Your task to perform on an android device: create a new album in the google photos Image 0: 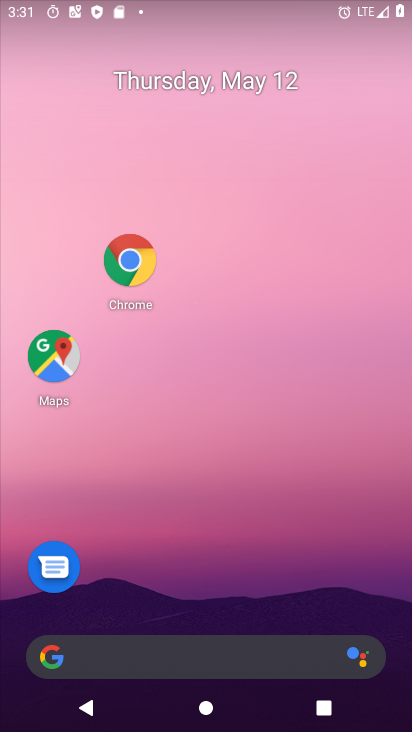
Step 0: drag from (270, 585) to (292, 271)
Your task to perform on an android device: create a new album in the google photos Image 1: 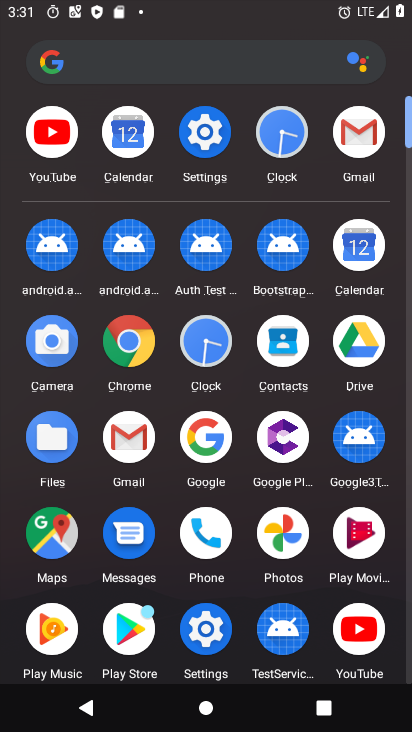
Step 1: click (281, 539)
Your task to perform on an android device: create a new album in the google photos Image 2: 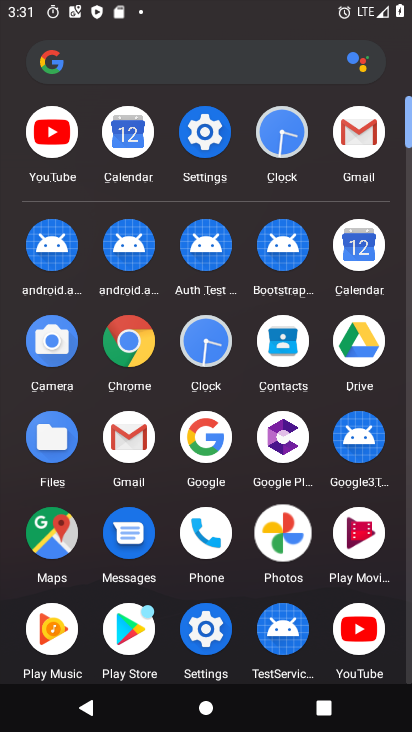
Step 2: click (282, 537)
Your task to perform on an android device: create a new album in the google photos Image 3: 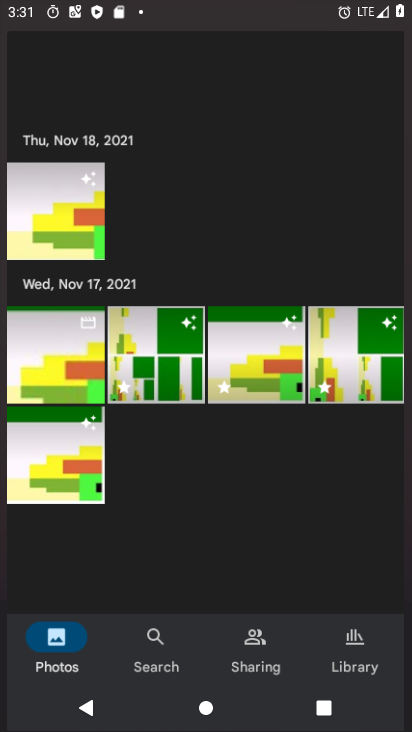
Step 3: click (288, 534)
Your task to perform on an android device: create a new album in the google photos Image 4: 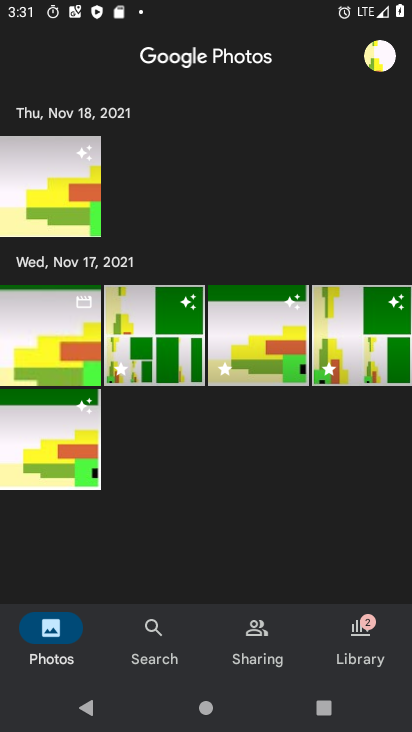
Step 4: click (355, 639)
Your task to perform on an android device: create a new album in the google photos Image 5: 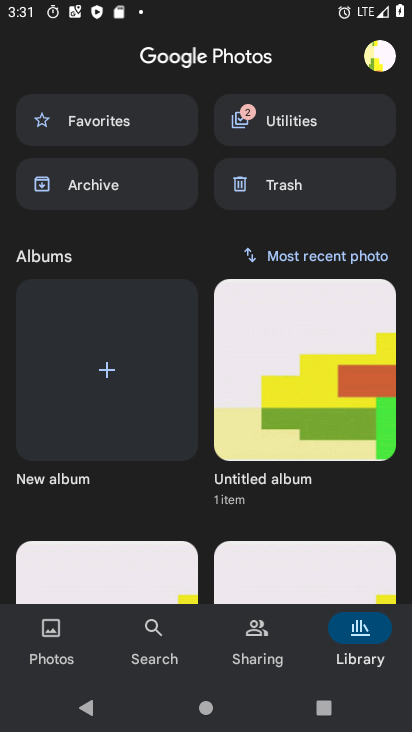
Step 5: click (119, 364)
Your task to perform on an android device: create a new album in the google photos Image 6: 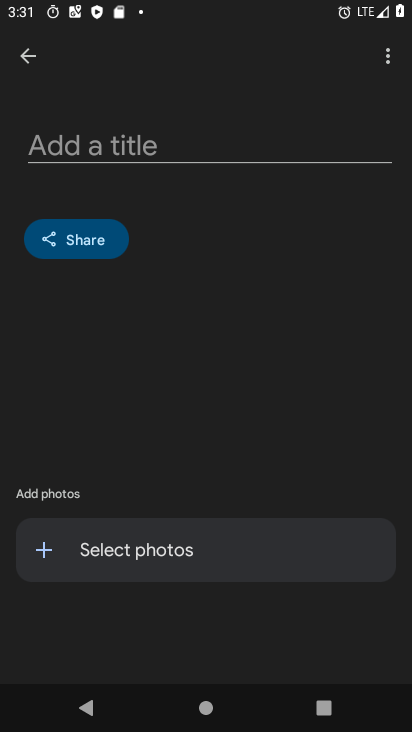
Step 6: click (98, 138)
Your task to perform on an android device: create a new album in the google photos Image 7: 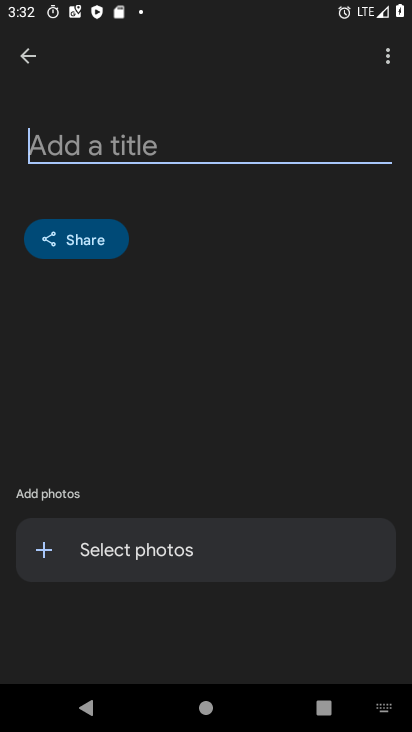
Step 7: type "Archu"
Your task to perform on an android device: create a new album in the google photos Image 8: 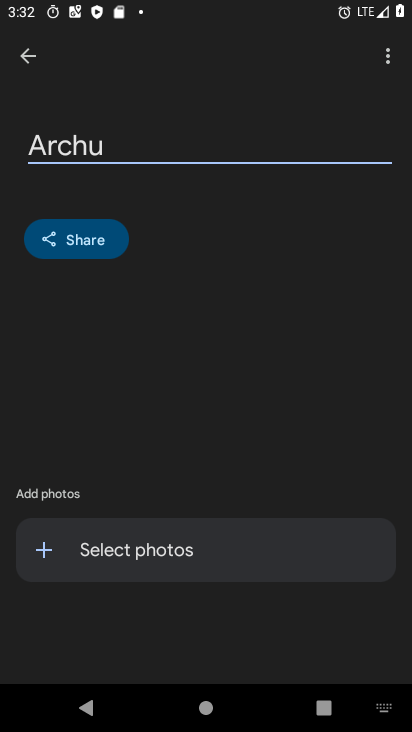
Step 8: click (66, 247)
Your task to perform on an android device: create a new album in the google photos Image 9: 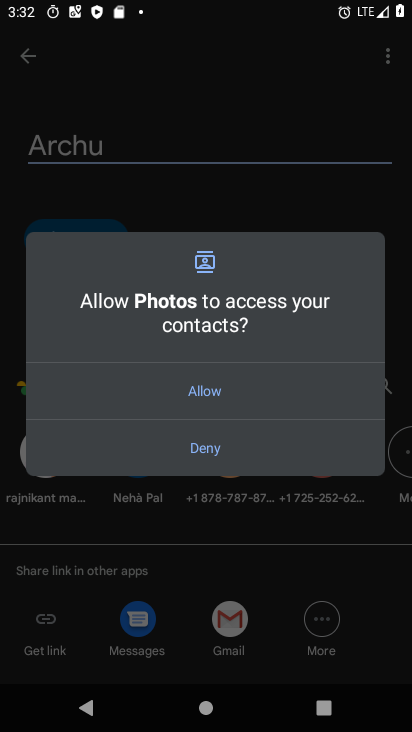
Step 9: click (201, 450)
Your task to perform on an android device: create a new album in the google photos Image 10: 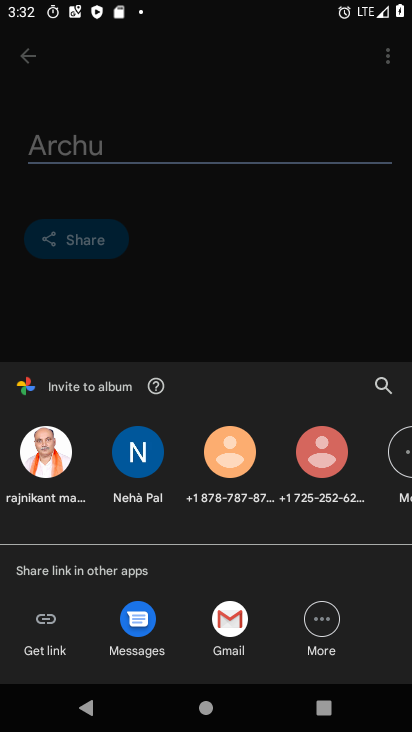
Step 10: drag from (228, 321) to (216, 213)
Your task to perform on an android device: create a new album in the google photos Image 11: 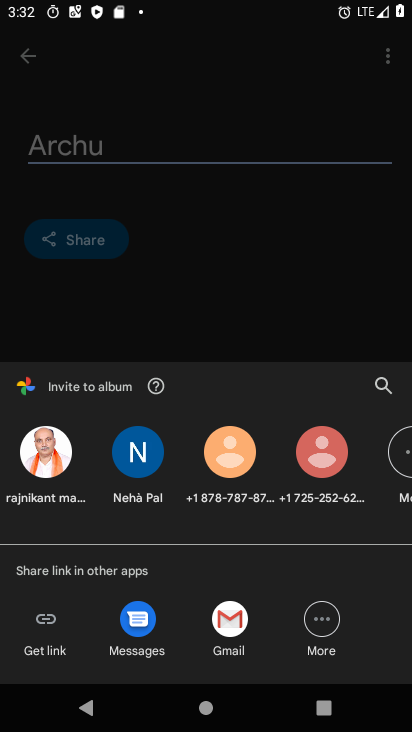
Step 11: drag from (131, 318) to (134, 199)
Your task to perform on an android device: create a new album in the google photos Image 12: 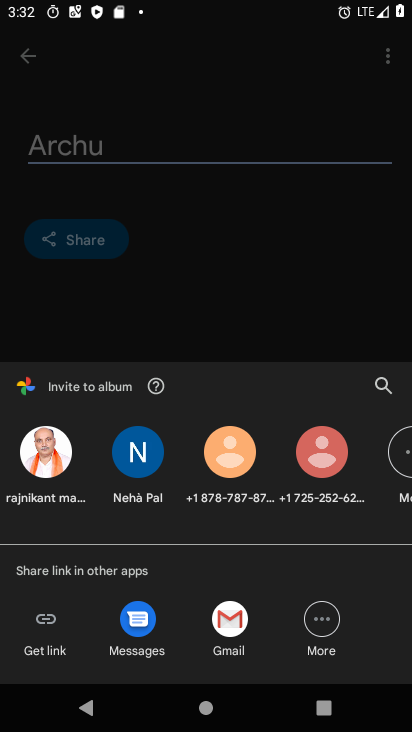
Step 12: press back button
Your task to perform on an android device: create a new album in the google photos Image 13: 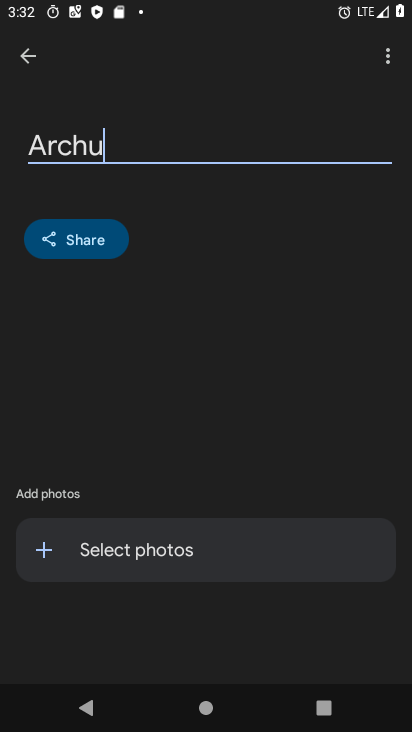
Step 13: click (122, 555)
Your task to perform on an android device: create a new album in the google photos Image 14: 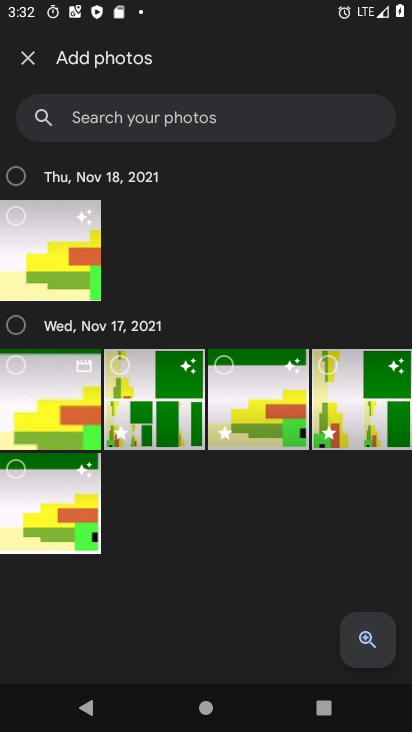
Step 14: click (42, 549)
Your task to perform on an android device: create a new album in the google photos Image 15: 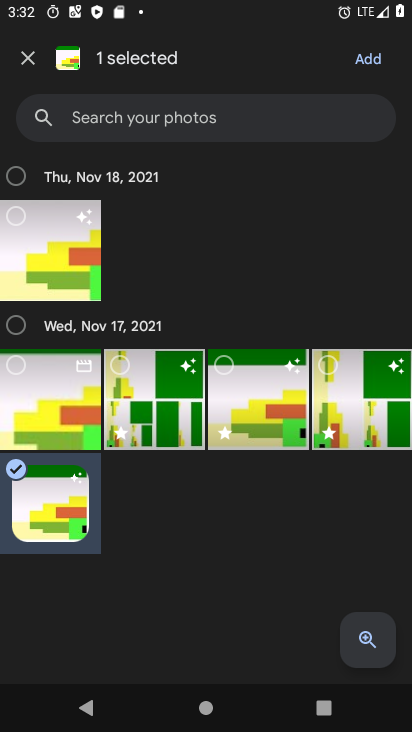
Step 15: click (17, 316)
Your task to perform on an android device: create a new album in the google photos Image 16: 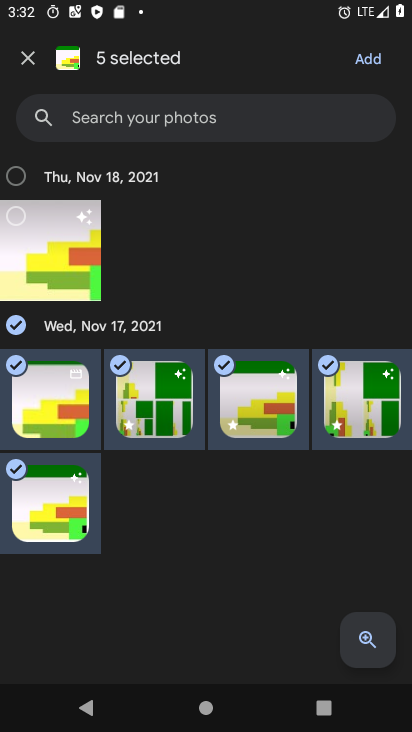
Step 16: click (376, 56)
Your task to perform on an android device: create a new album in the google photos Image 17: 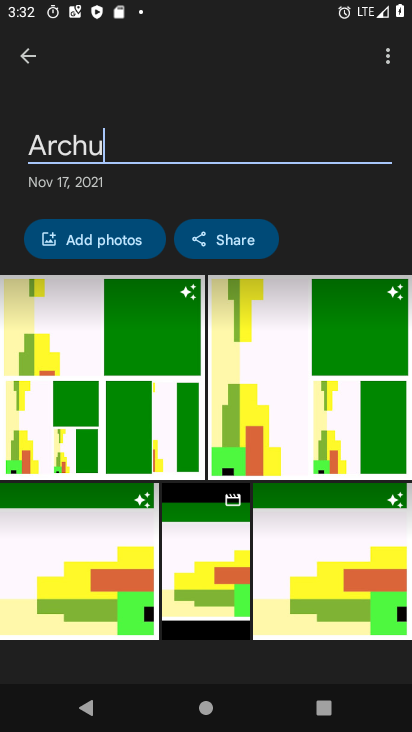
Step 17: task complete